Your task to perform on an android device: Open battery settings Image 0: 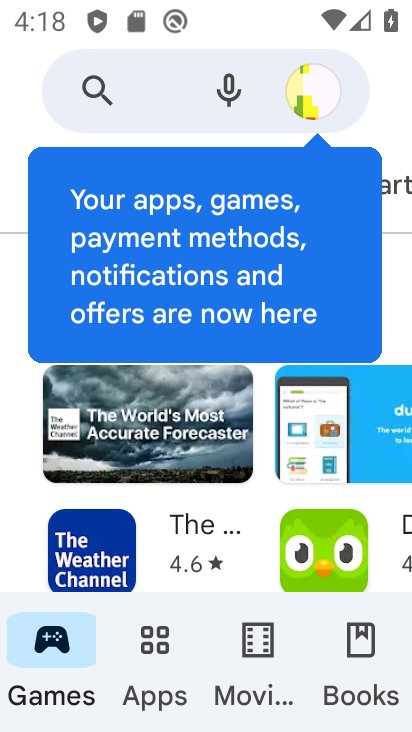
Step 0: press home button
Your task to perform on an android device: Open battery settings Image 1: 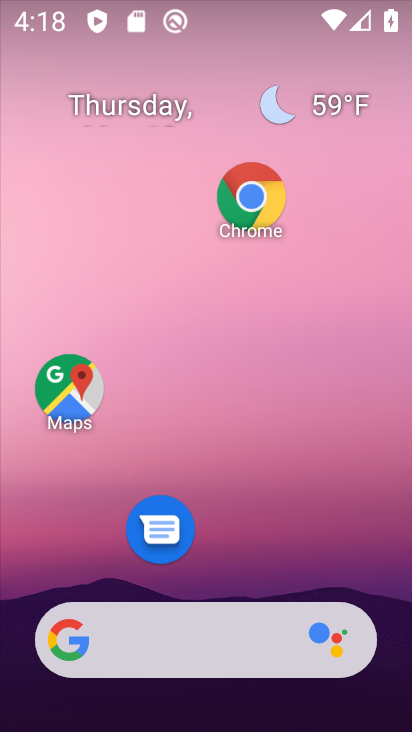
Step 1: drag from (218, 561) to (216, 195)
Your task to perform on an android device: Open battery settings Image 2: 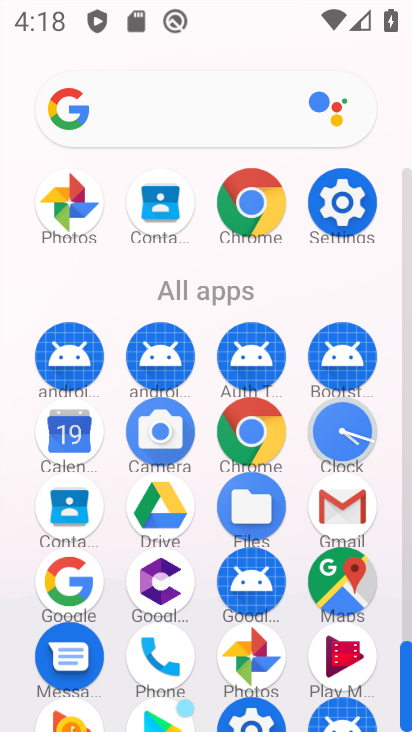
Step 2: click (341, 199)
Your task to perform on an android device: Open battery settings Image 3: 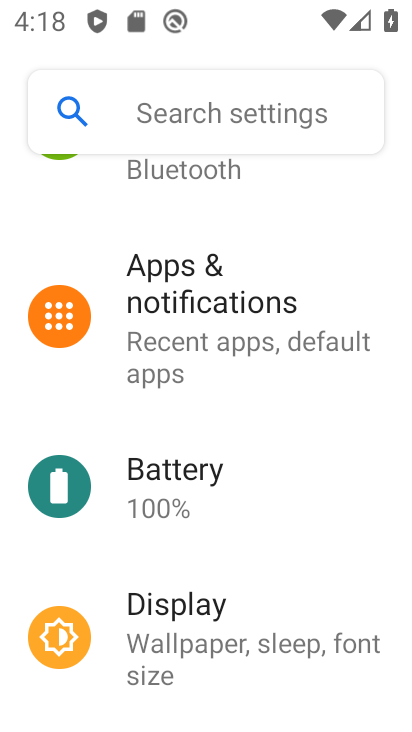
Step 3: click (167, 467)
Your task to perform on an android device: Open battery settings Image 4: 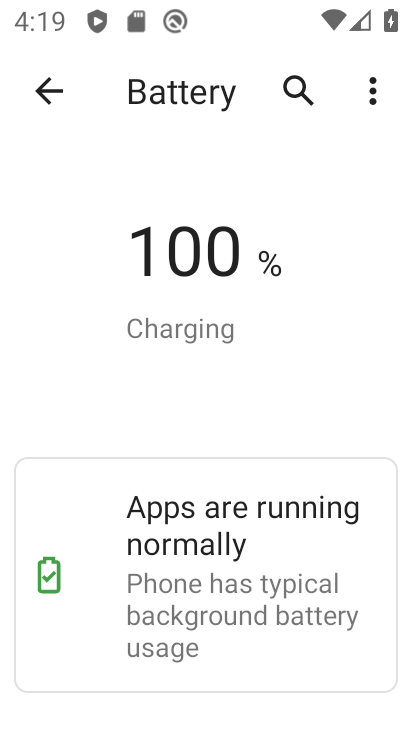
Step 4: task complete